Your task to perform on an android device: open app "Life360: Find Family & Friends" Image 0: 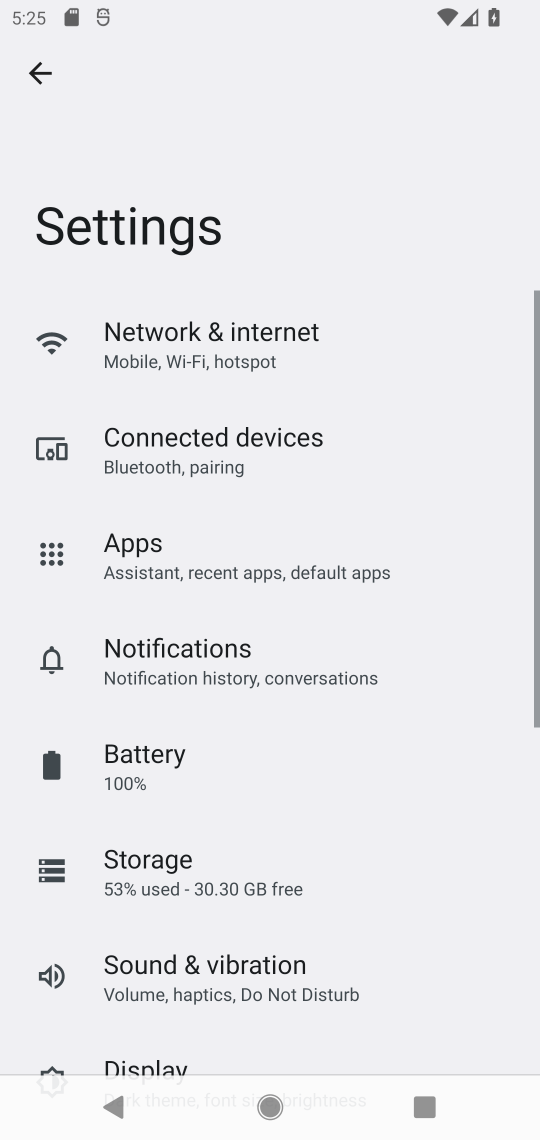
Step 0: press back button
Your task to perform on an android device: open app "Life360: Find Family & Friends" Image 1: 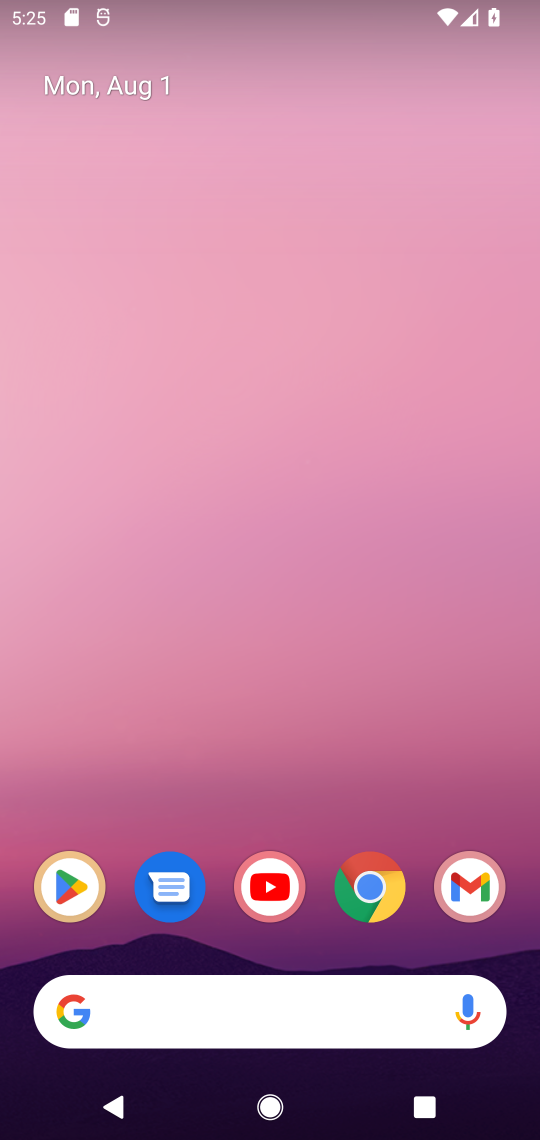
Step 1: click (69, 896)
Your task to perform on an android device: open app "Life360: Find Family & Friends" Image 2: 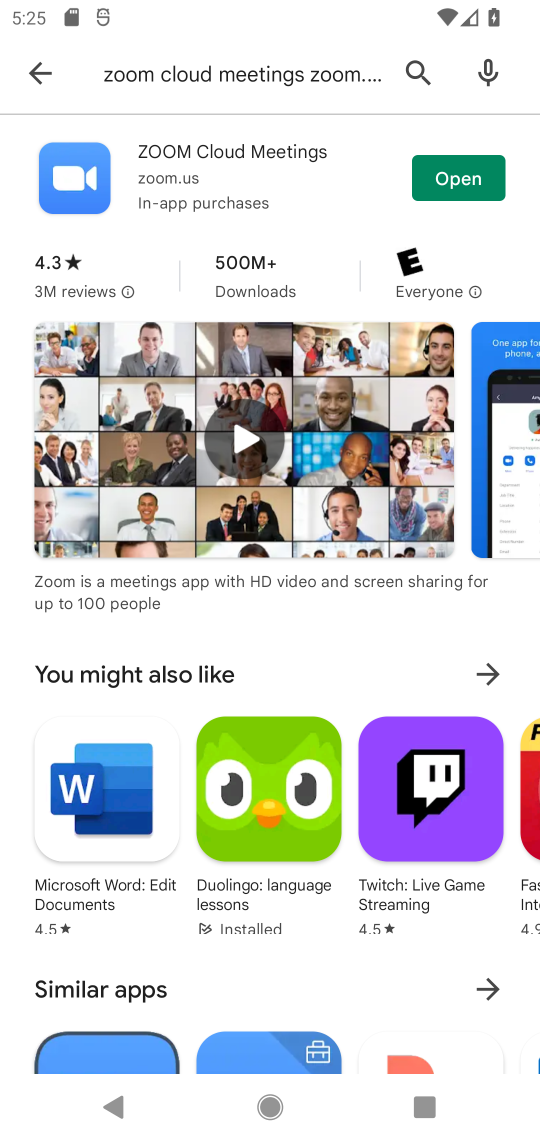
Step 2: click (35, 69)
Your task to perform on an android device: open app "Life360: Find Family & Friends" Image 3: 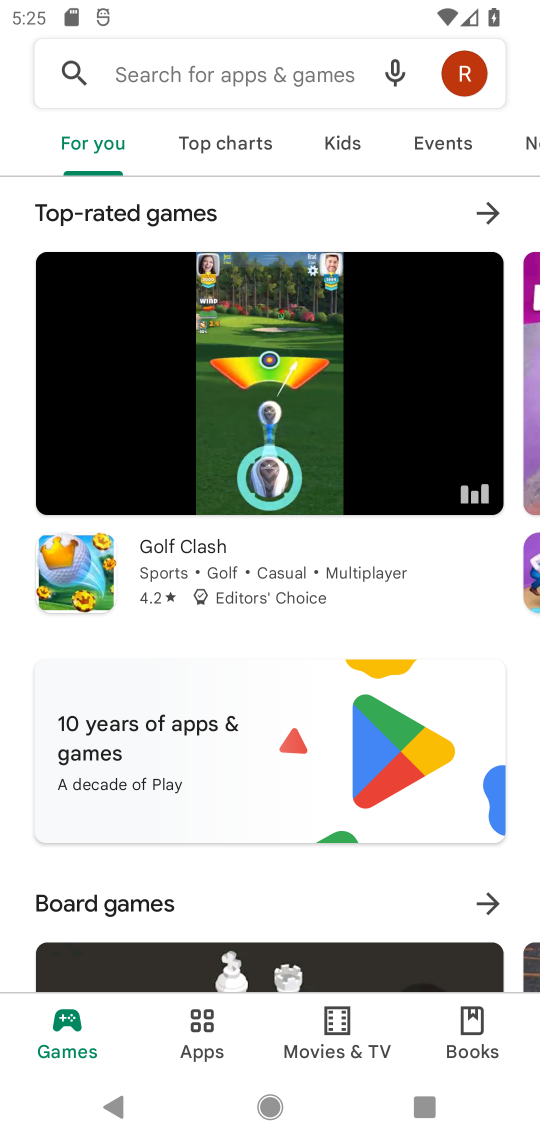
Step 3: click (229, 77)
Your task to perform on an android device: open app "Life360: Find Family & Friends" Image 4: 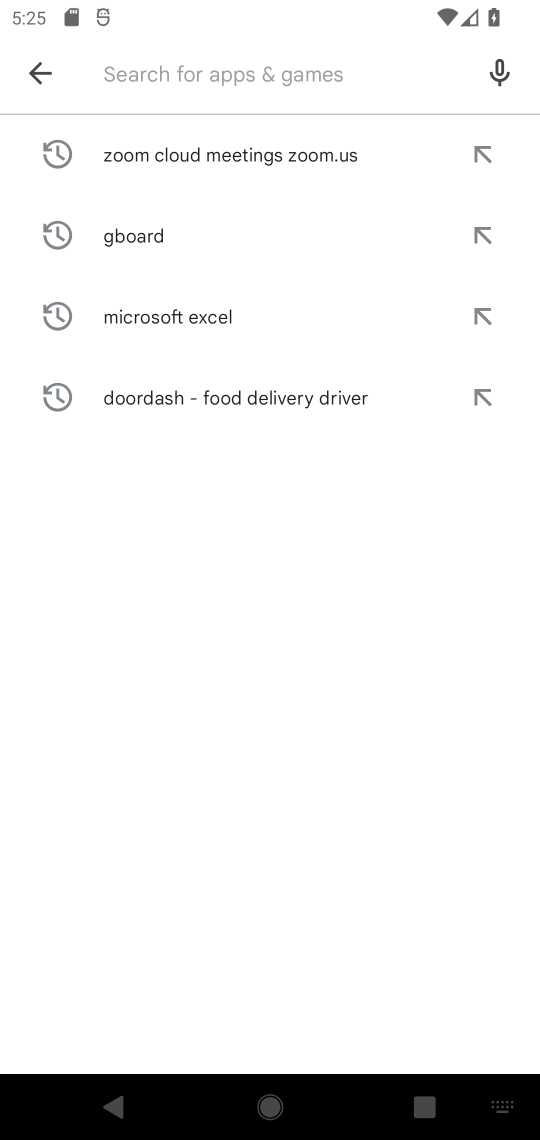
Step 4: type "Life360"
Your task to perform on an android device: open app "Life360: Find Family & Friends" Image 5: 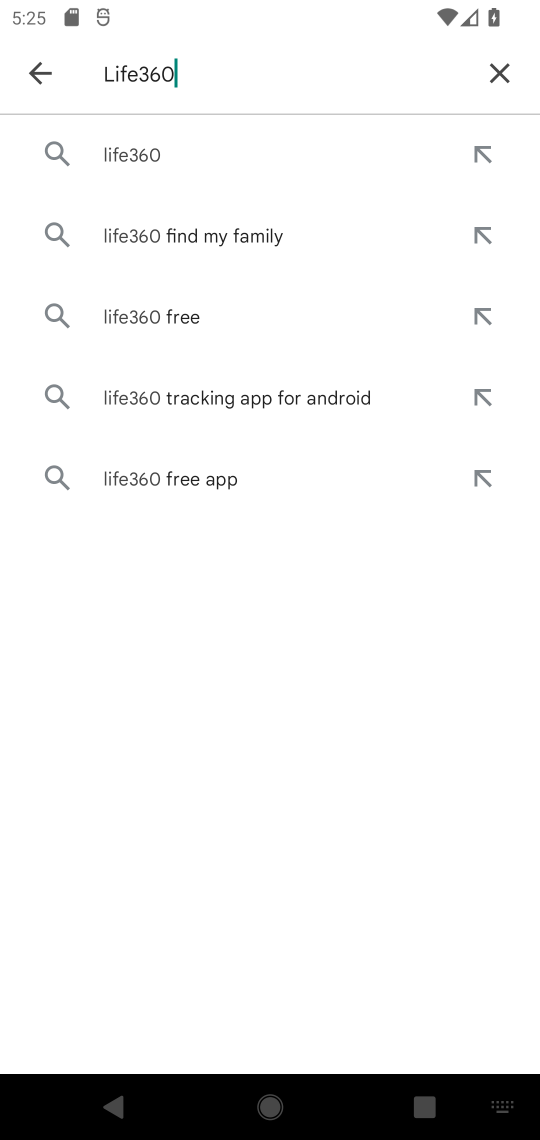
Step 5: click (229, 225)
Your task to perform on an android device: open app "Life360: Find Family & Friends" Image 6: 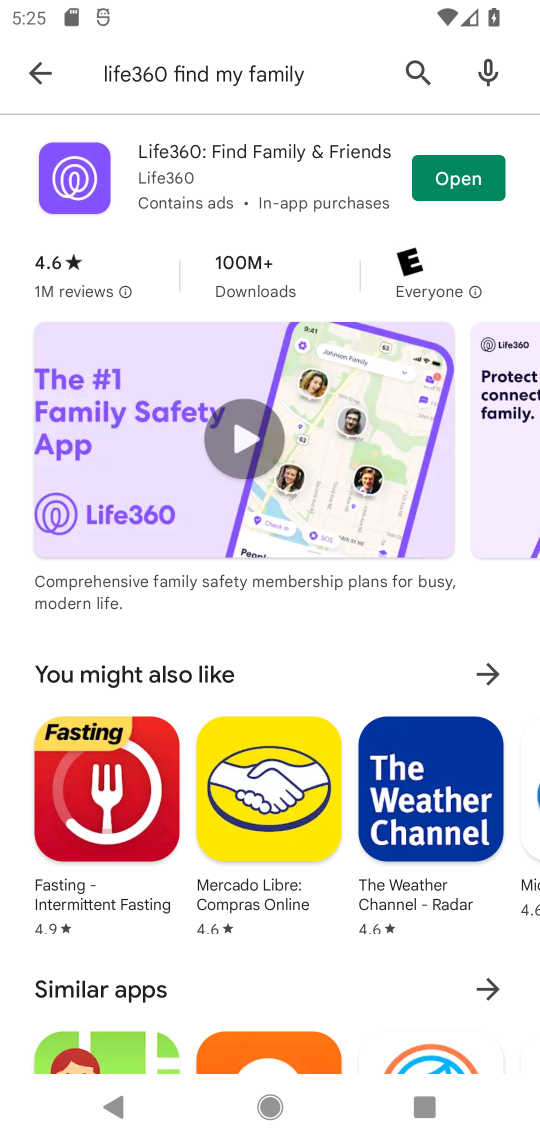
Step 6: click (467, 170)
Your task to perform on an android device: open app "Life360: Find Family & Friends" Image 7: 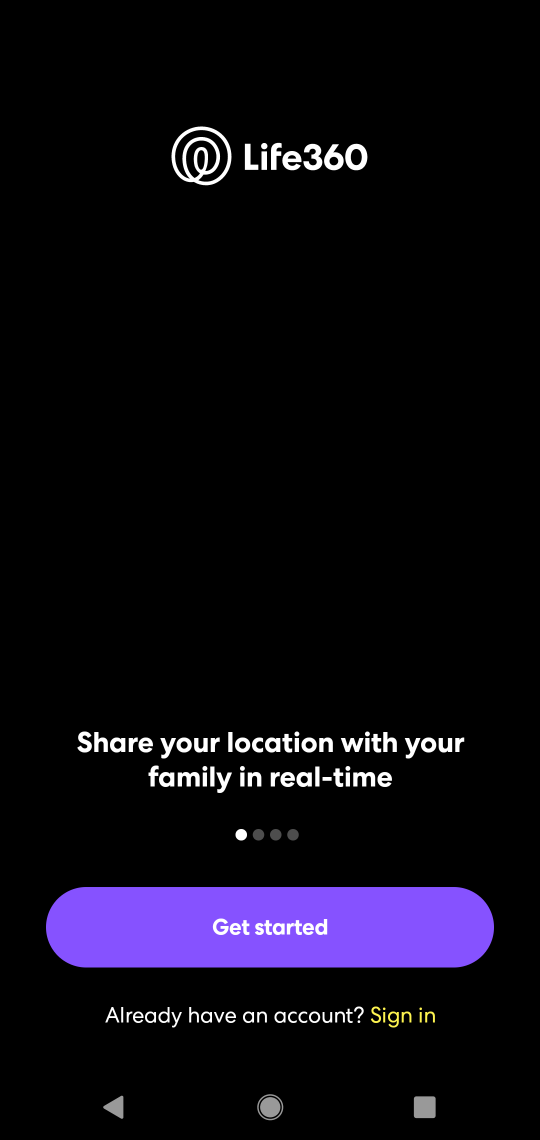
Step 7: task complete